Your task to perform on an android device: open a new tab in the chrome app Image 0: 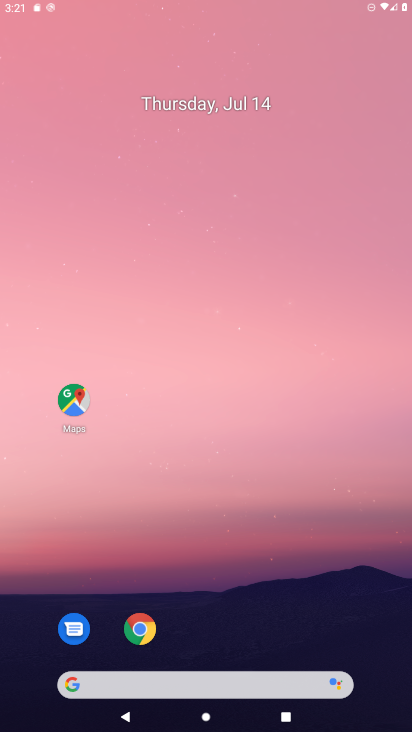
Step 0: press home button
Your task to perform on an android device: open a new tab in the chrome app Image 1: 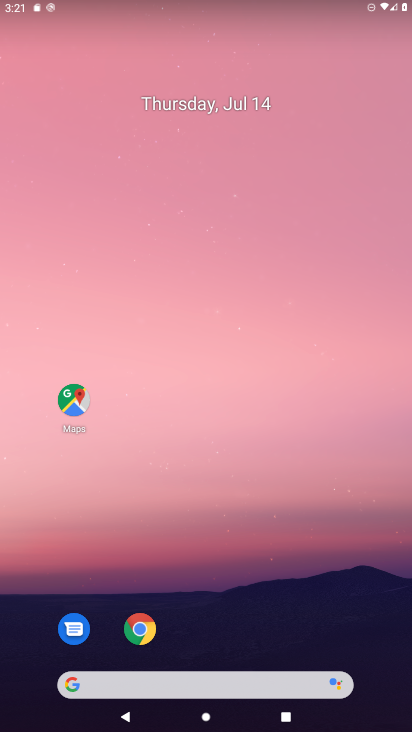
Step 1: click (138, 630)
Your task to perform on an android device: open a new tab in the chrome app Image 2: 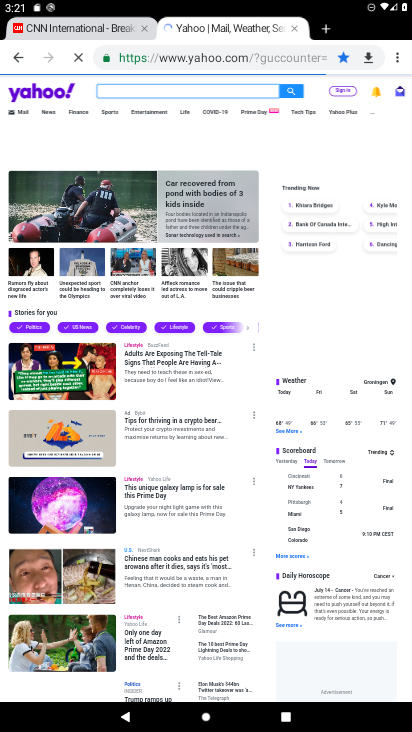
Step 2: click (296, 27)
Your task to perform on an android device: open a new tab in the chrome app Image 3: 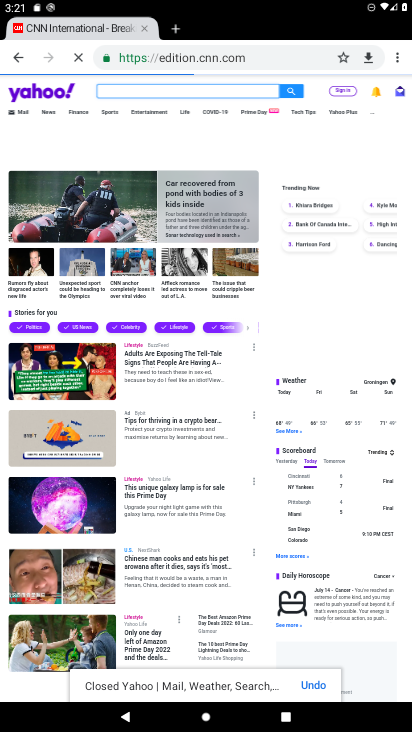
Step 3: click (176, 24)
Your task to perform on an android device: open a new tab in the chrome app Image 4: 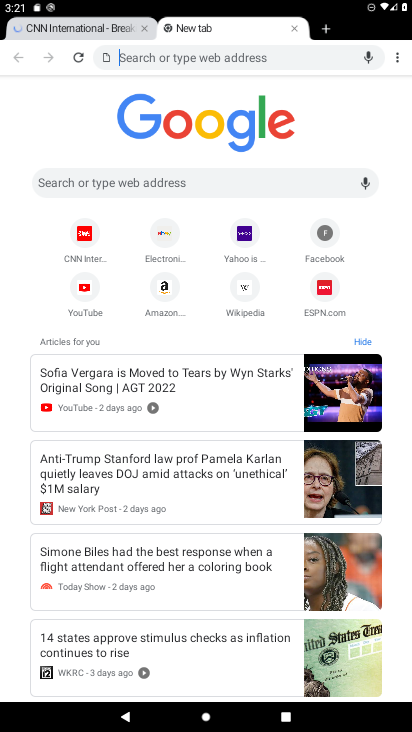
Step 4: task complete